Your task to perform on an android device: uninstall "Instagram" Image 0: 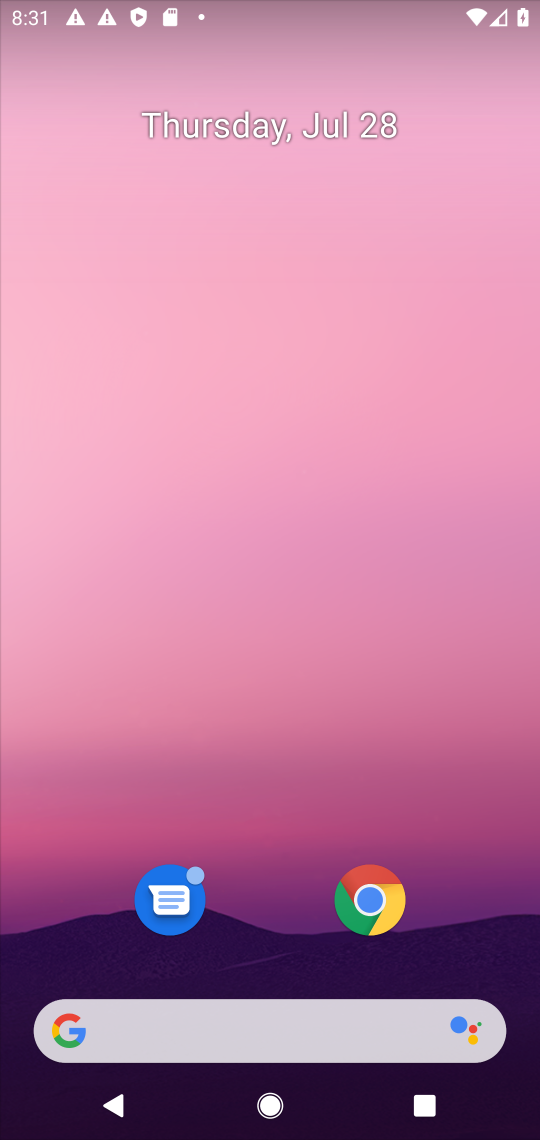
Step 0: drag from (394, 747) to (420, 379)
Your task to perform on an android device: uninstall "Instagram" Image 1: 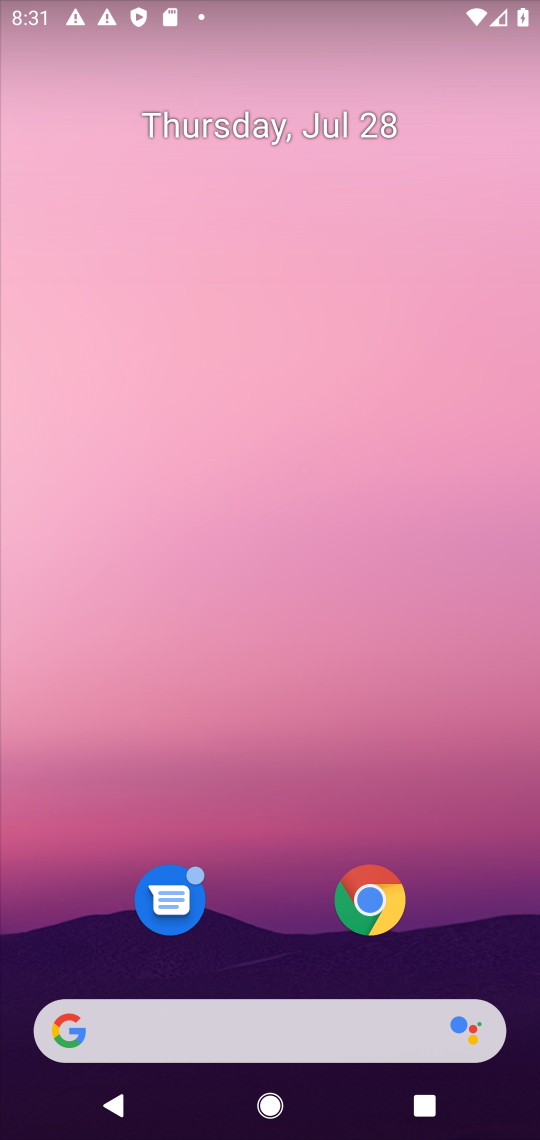
Step 1: task complete